Your task to perform on an android device: turn on location history Image 0: 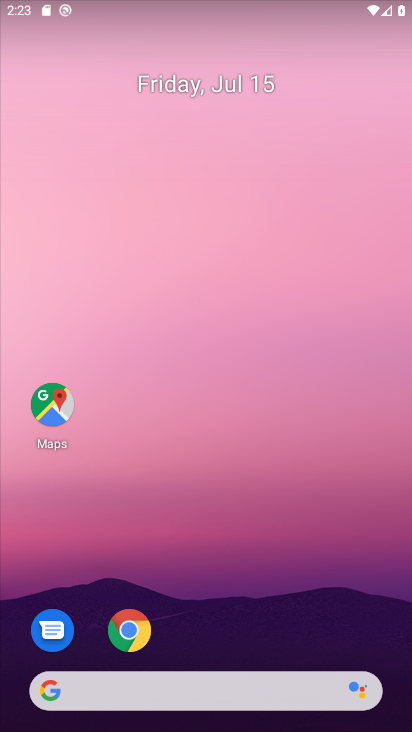
Step 0: drag from (306, 603) to (234, 3)
Your task to perform on an android device: turn on location history Image 1: 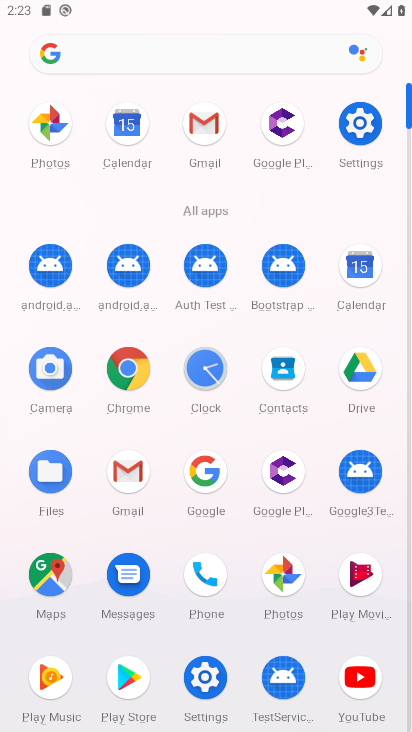
Step 1: click (360, 117)
Your task to perform on an android device: turn on location history Image 2: 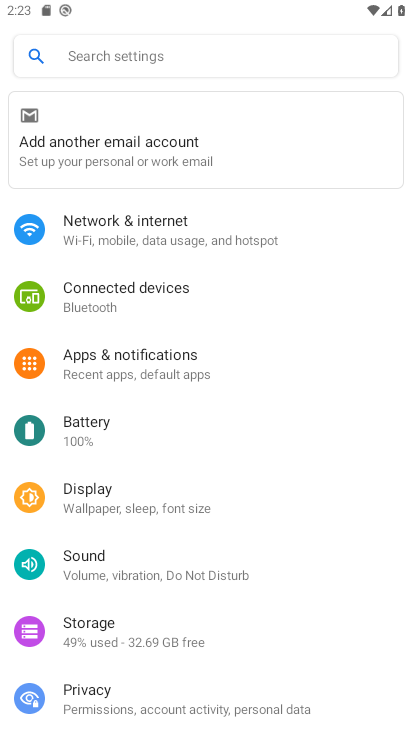
Step 2: drag from (167, 669) to (218, 305)
Your task to perform on an android device: turn on location history Image 3: 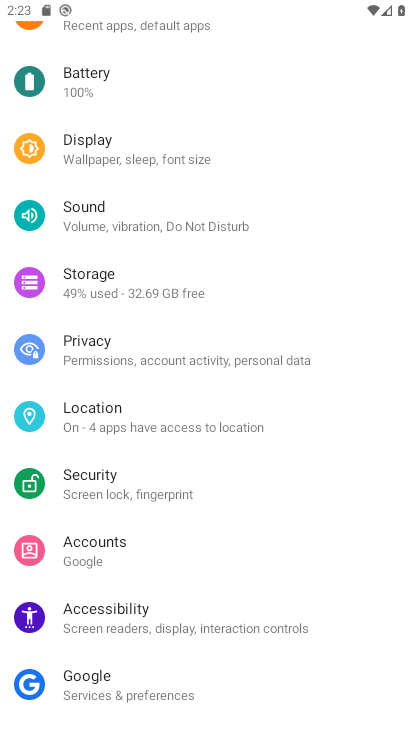
Step 3: click (97, 408)
Your task to perform on an android device: turn on location history Image 4: 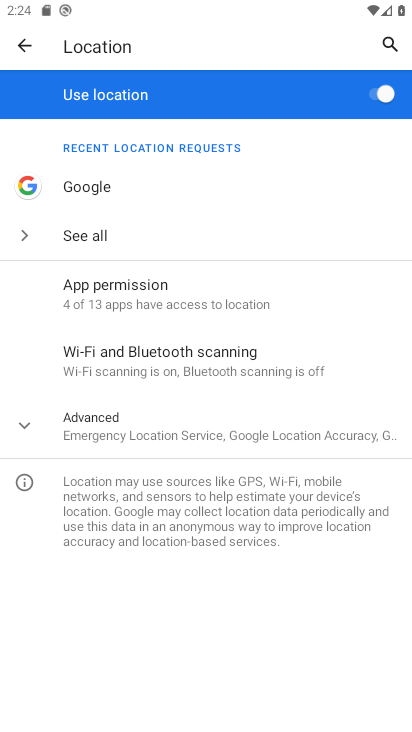
Step 4: click (139, 418)
Your task to perform on an android device: turn on location history Image 5: 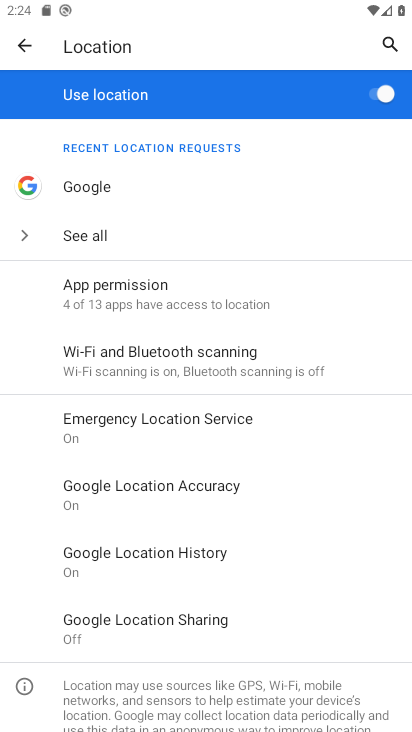
Step 5: click (160, 559)
Your task to perform on an android device: turn on location history Image 6: 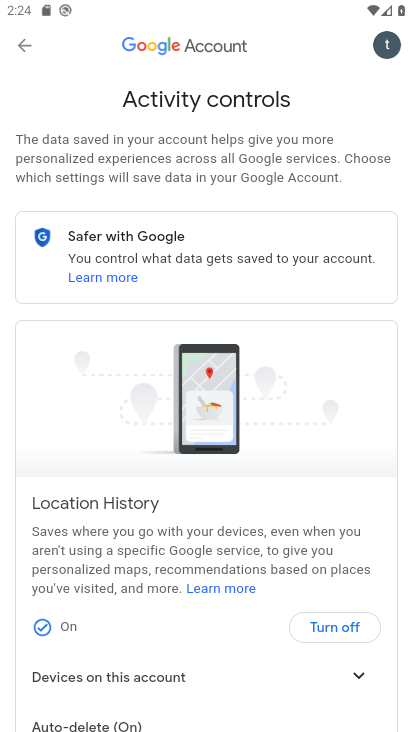
Step 6: task complete